Your task to perform on an android device: toggle notifications settings in the gmail app Image 0: 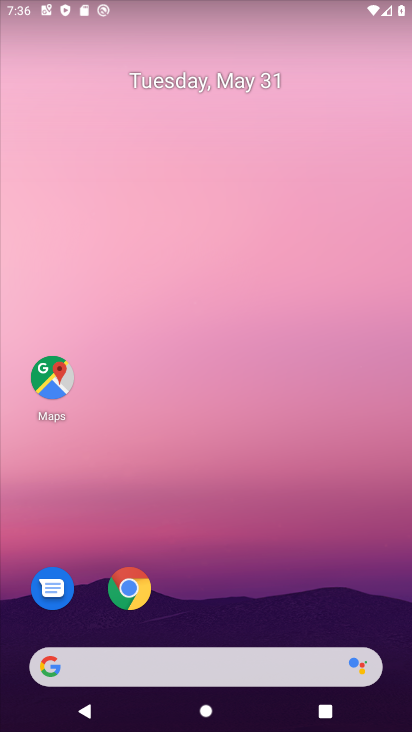
Step 0: drag from (194, 601) to (275, 34)
Your task to perform on an android device: toggle notifications settings in the gmail app Image 1: 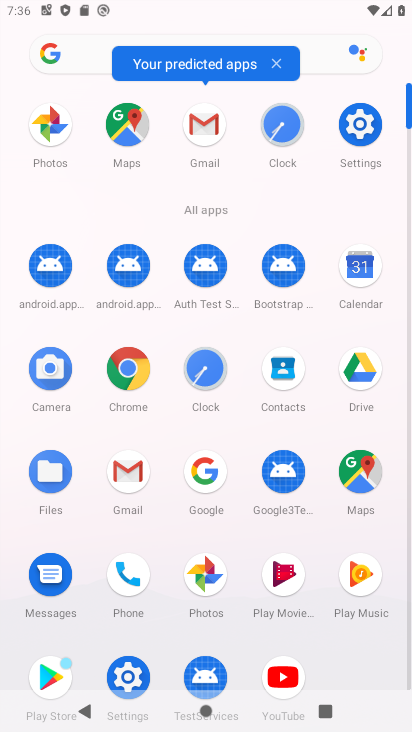
Step 1: click (130, 475)
Your task to perform on an android device: toggle notifications settings in the gmail app Image 2: 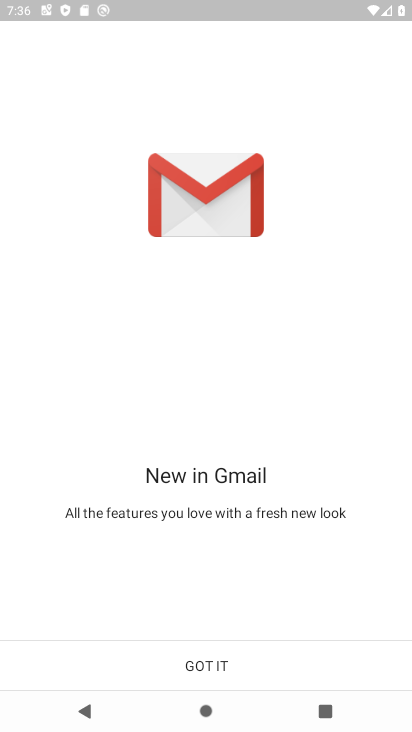
Step 2: click (219, 668)
Your task to perform on an android device: toggle notifications settings in the gmail app Image 3: 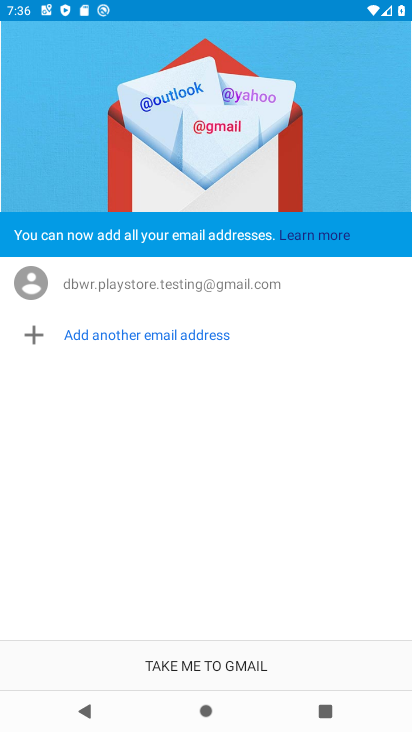
Step 3: click (219, 668)
Your task to perform on an android device: toggle notifications settings in the gmail app Image 4: 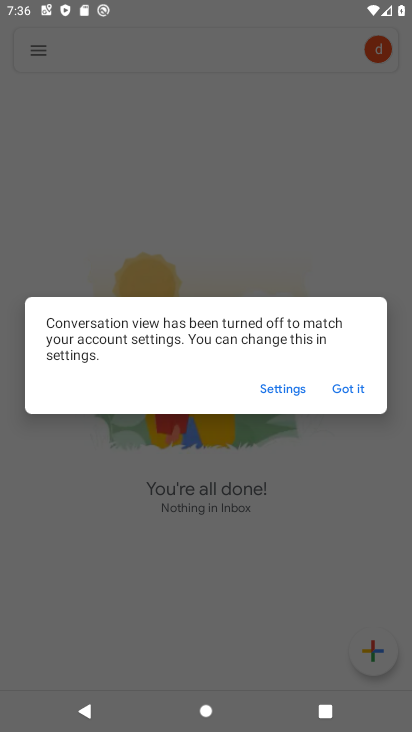
Step 4: click (350, 383)
Your task to perform on an android device: toggle notifications settings in the gmail app Image 5: 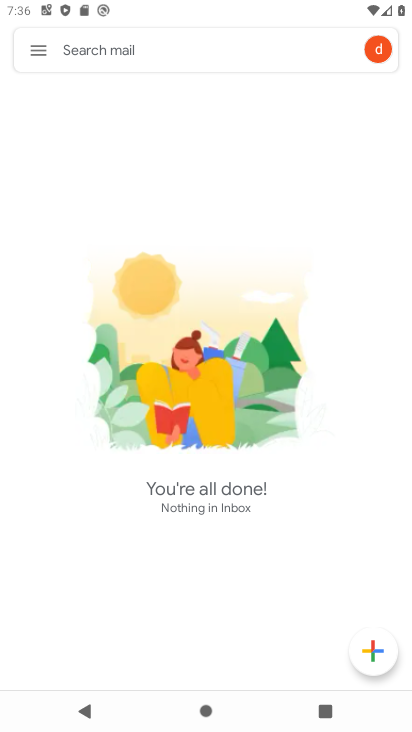
Step 5: click (30, 53)
Your task to perform on an android device: toggle notifications settings in the gmail app Image 6: 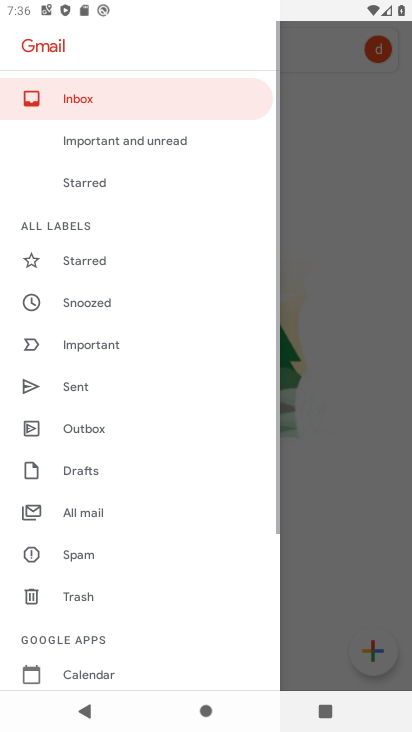
Step 6: drag from (110, 561) to (169, 356)
Your task to perform on an android device: toggle notifications settings in the gmail app Image 7: 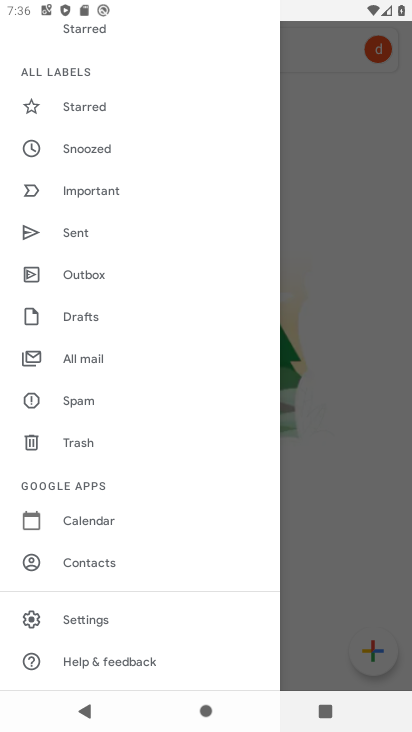
Step 7: click (95, 624)
Your task to perform on an android device: toggle notifications settings in the gmail app Image 8: 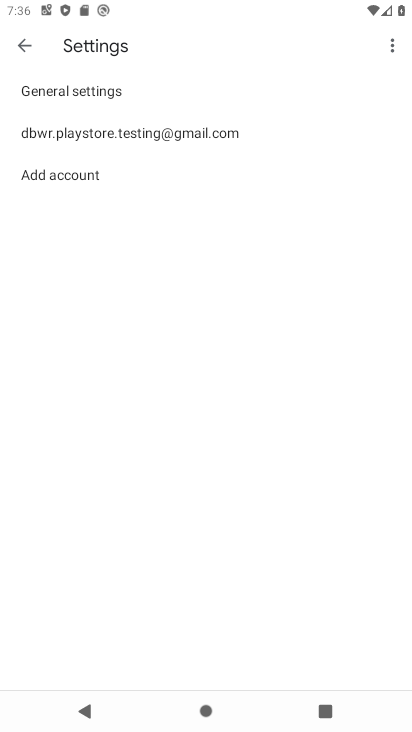
Step 8: click (117, 92)
Your task to perform on an android device: toggle notifications settings in the gmail app Image 9: 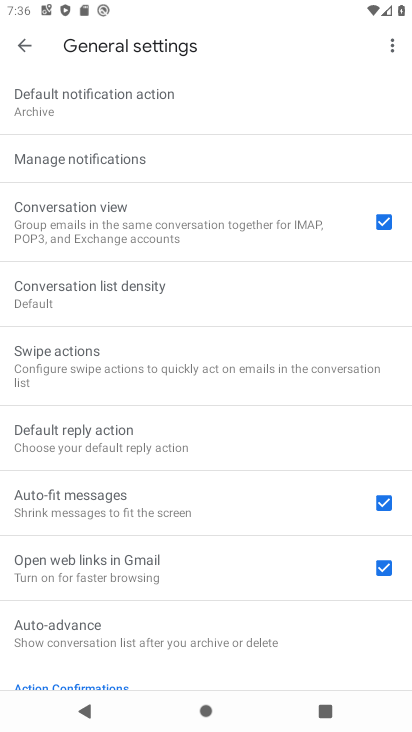
Step 9: click (124, 145)
Your task to perform on an android device: toggle notifications settings in the gmail app Image 10: 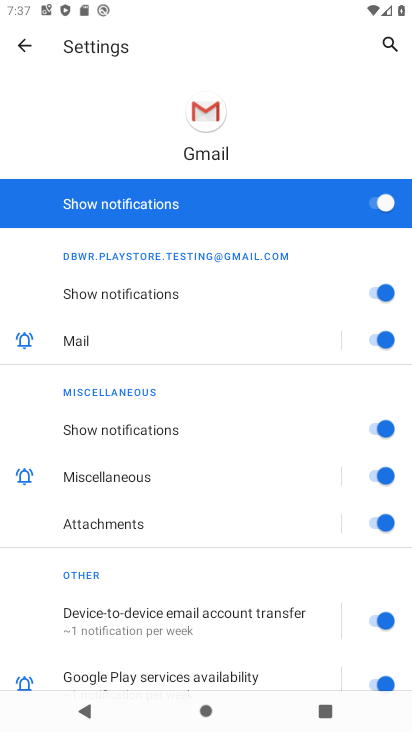
Step 10: click (354, 212)
Your task to perform on an android device: toggle notifications settings in the gmail app Image 11: 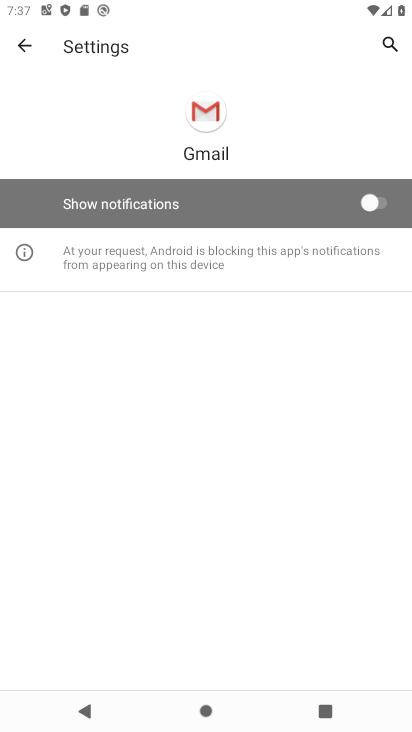
Step 11: task complete